Your task to perform on an android device: toggle pop-ups in chrome Image 0: 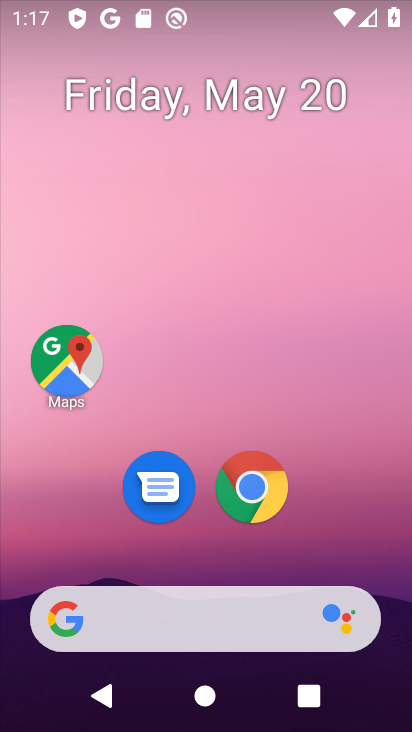
Step 0: press home button
Your task to perform on an android device: toggle pop-ups in chrome Image 1: 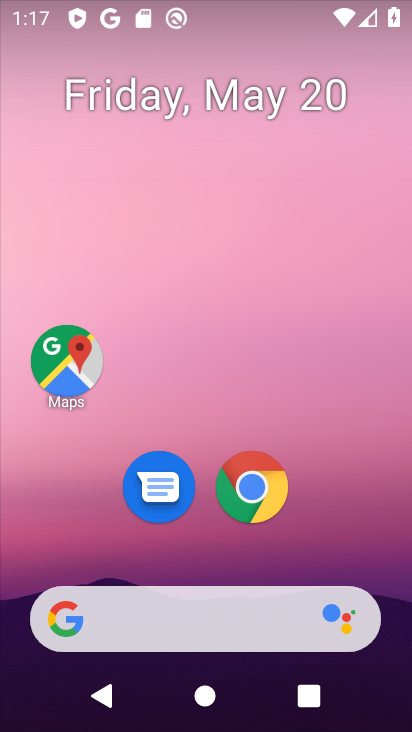
Step 1: click (250, 481)
Your task to perform on an android device: toggle pop-ups in chrome Image 2: 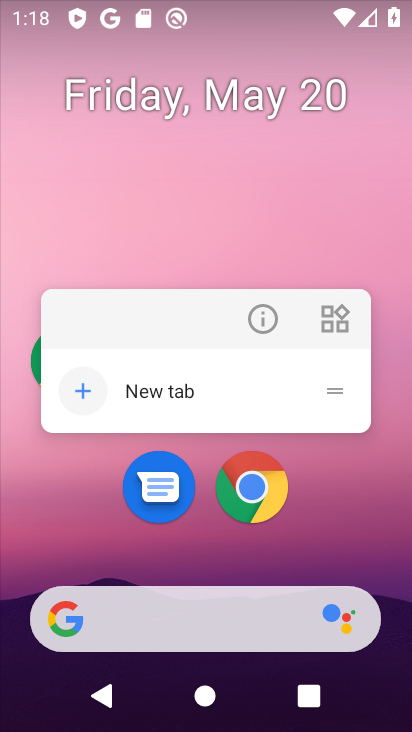
Step 2: click (247, 476)
Your task to perform on an android device: toggle pop-ups in chrome Image 3: 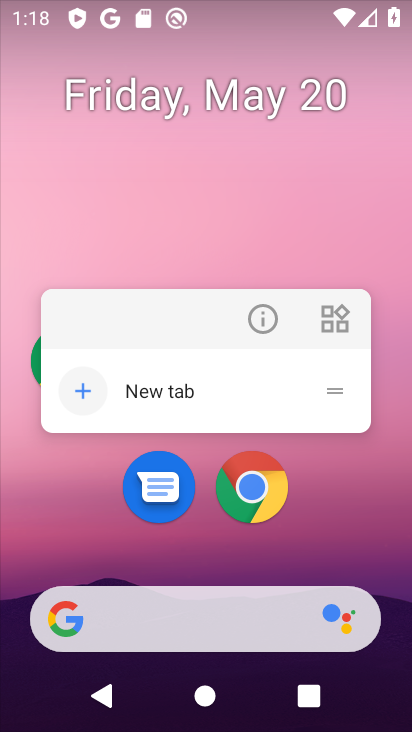
Step 3: click (248, 473)
Your task to perform on an android device: toggle pop-ups in chrome Image 4: 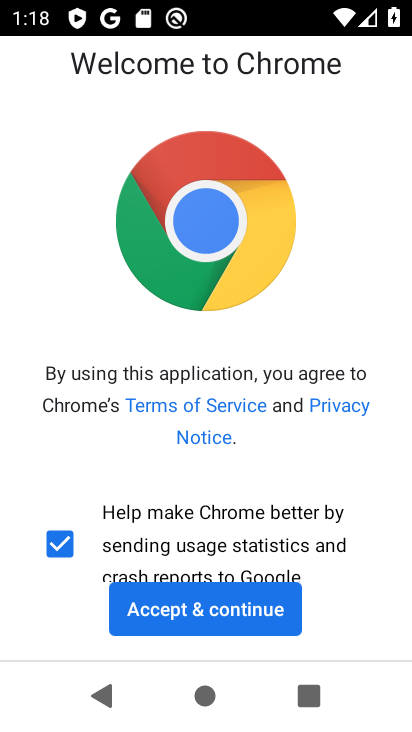
Step 4: click (193, 607)
Your task to perform on an android device: toggle pop-ups in chrome Image 5: 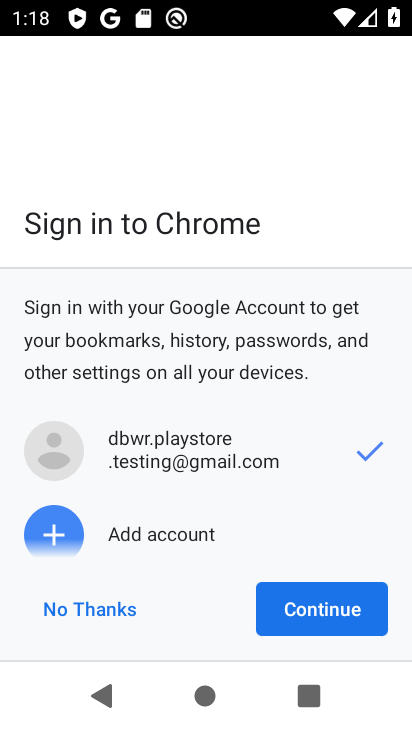
Step 5: click (320, 605)
Your task to perform on an android device: toggle pop-ups in chrome Image 6: 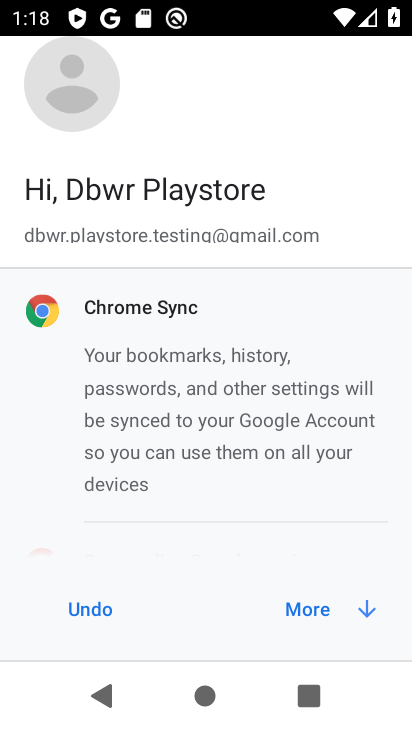
Step 6: click (317, 595)
Your task to perform on an android device: toggle pop-ups in chrome Image 7: 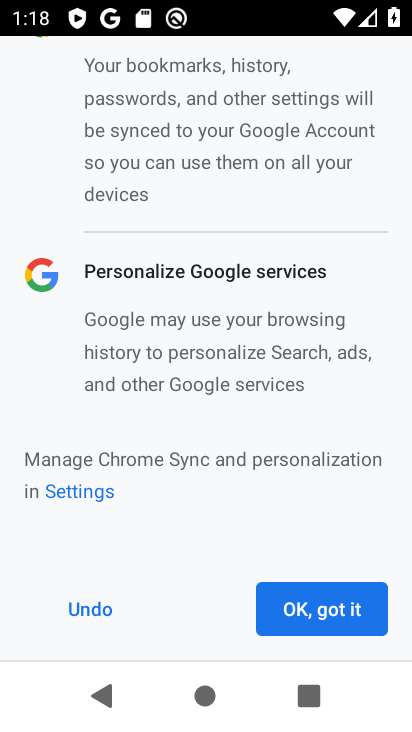
Step 7: click (338, 610)
Your task to perform on an android device: toggle pop-ups in chrome Image 8: 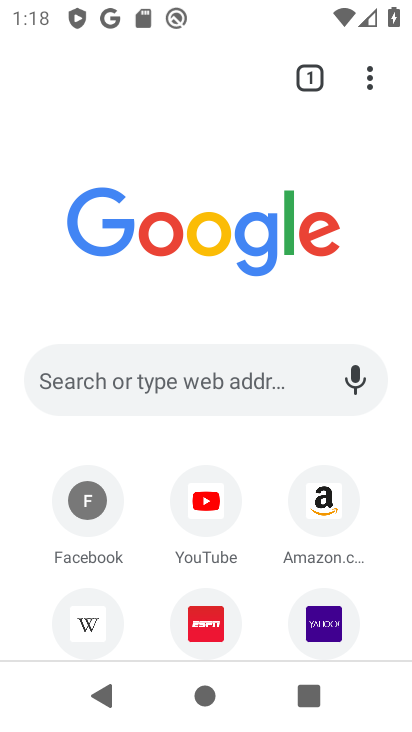
Step 8: click (374, 81)
Your task to perform on an android device: toggle pop-ups in chrome Image 9: 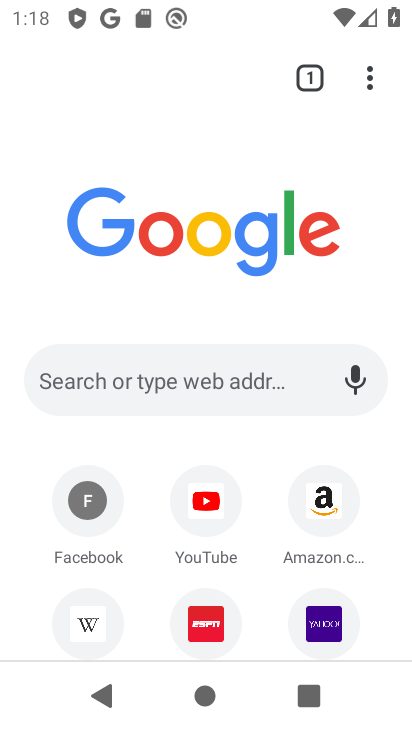
Step 9: click (360, 67)
Your task to perform on an android device: toggle pop-ups in chrome Image 10: 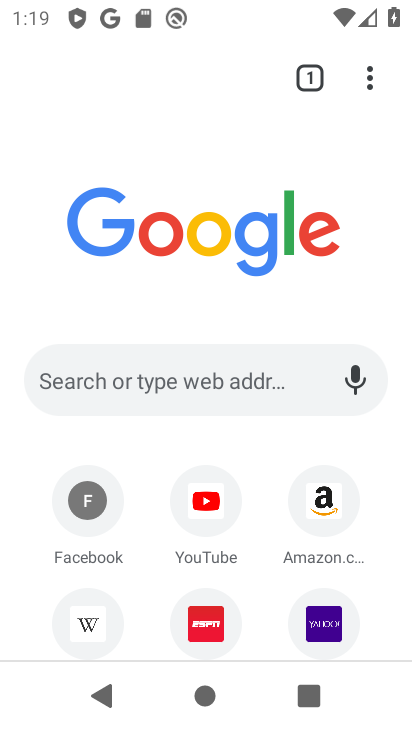
Step 10: click (363, 77)
Your task to perform on an android device: toggle pop-ups in chrome Image 11: 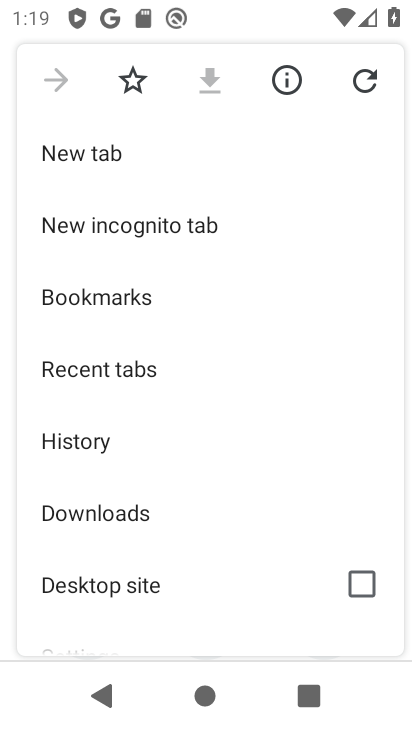
Step 11: drag from (150, 609) to (178, 69)
Your task to perform on an android device: toggle pop-ups in chrome Image 12: 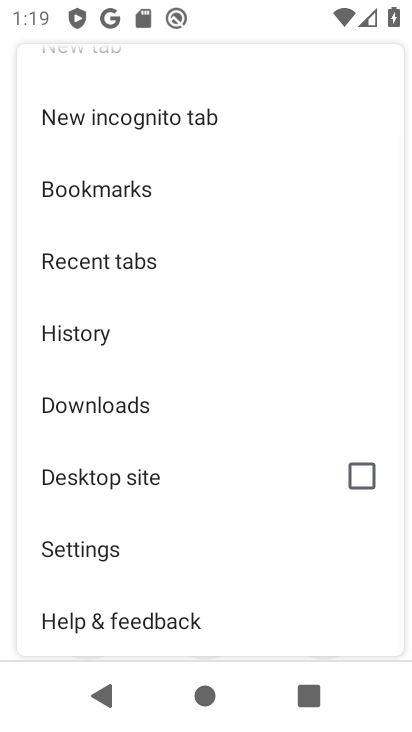
Step 12: click (126, 550)
Your task to perform on an android device: toggle pop-ups in chrome Image 13: 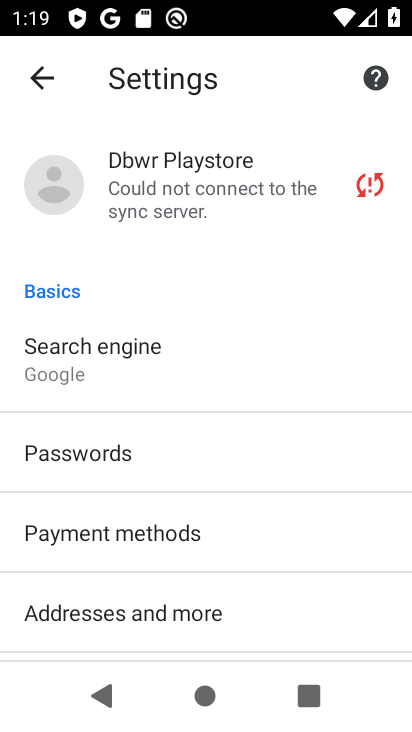
Step 13: drag from (236, 603) to (253, 145)
Your task to perform on an android device: toggle pop-ups in chrome Image 14: 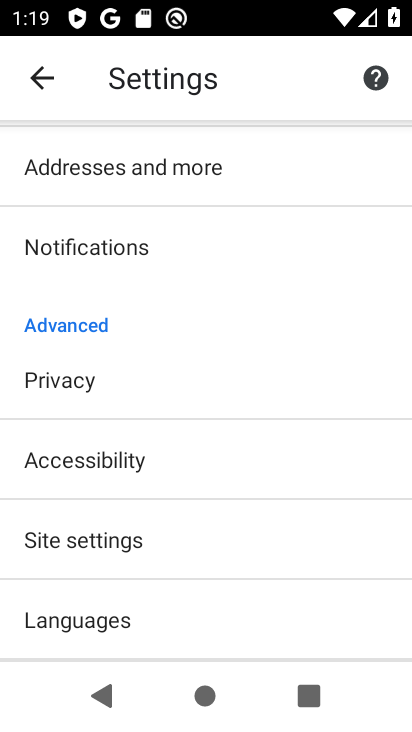
Step 14: click (157, 537)
Your task to perform on an android device: toggle pop-ups in chrome Image 15: 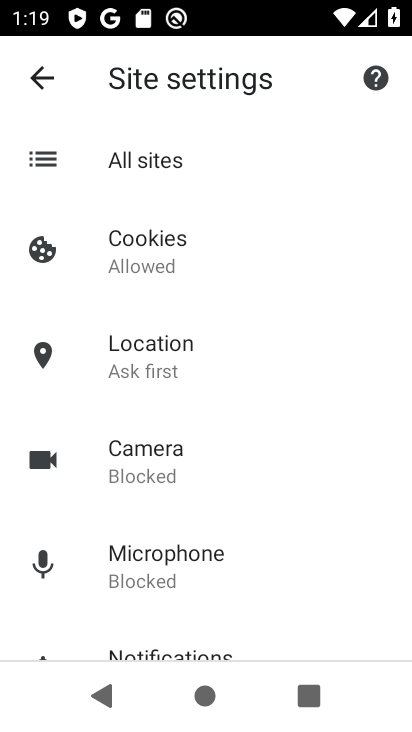
Step 15: drag from (194, 600) to (211, 274)
Your task to perform on an android device: toggle pop-ups in chrome Image 16: 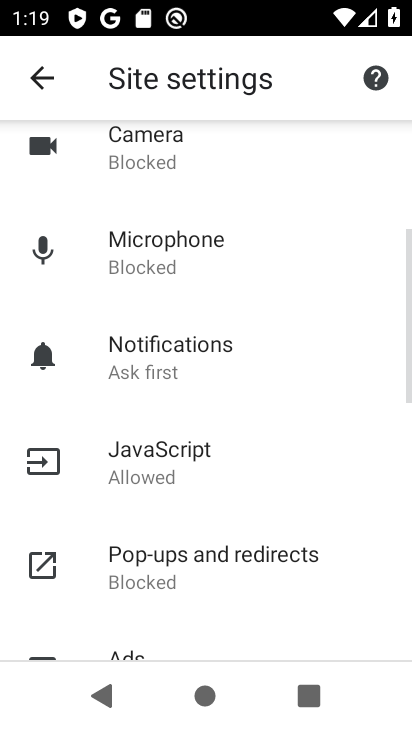
Step 16: click (185, 562)
Your task to perform on an android device: toggle pop-ups in chrome Image 17: 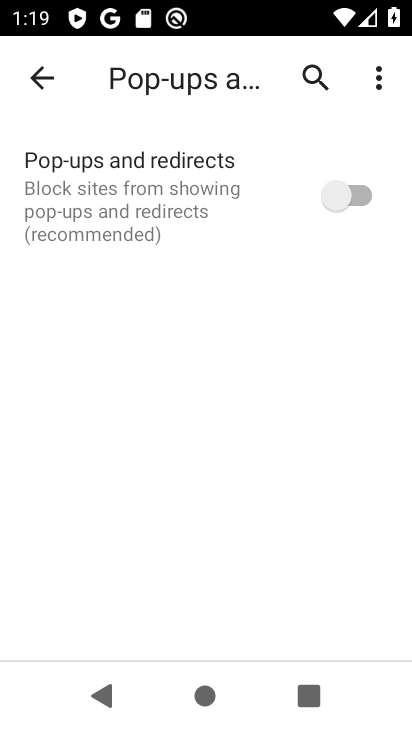
Step 17: click (353, 192)
Your task to perform on an android device: toggle pop-ups in chrome Image 18: 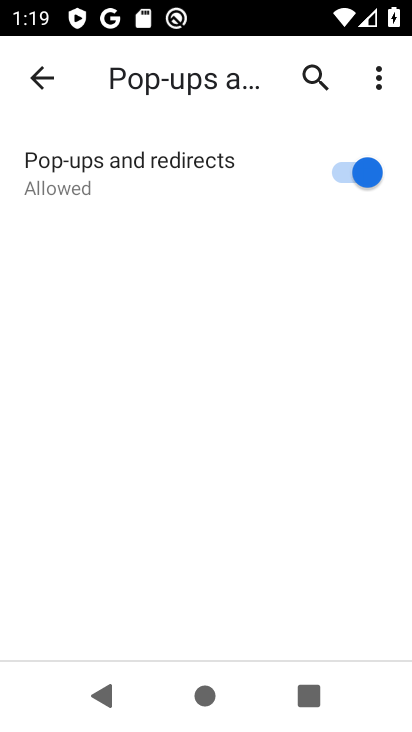
Step 18: task complete